Your task to perform on an android device: Open CNN.com Image 0: 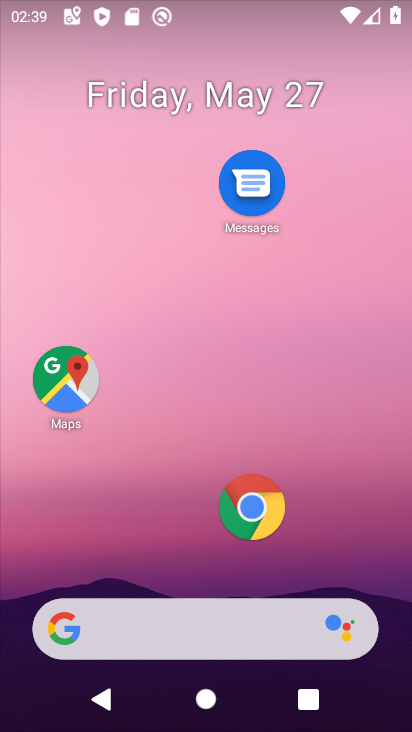
Step 0: drag from (185, 586) to (170, 397)
Your task to perform on an android device: Open CNN.com Image 1: 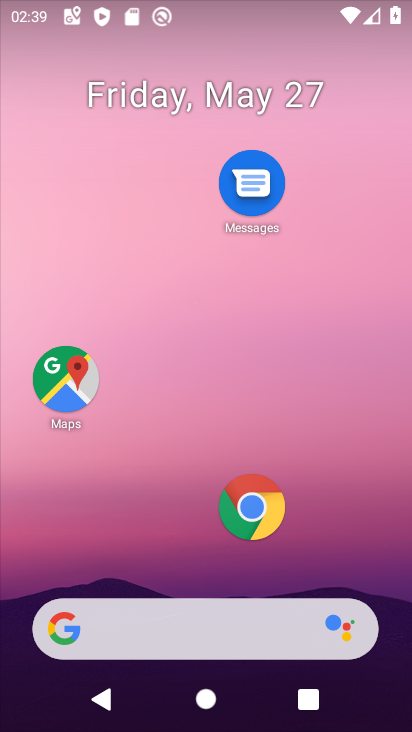
Step 1: drag from (203, 582) to (287, 0)
Your task to perform on an android device: Open CNN.com Image 2: 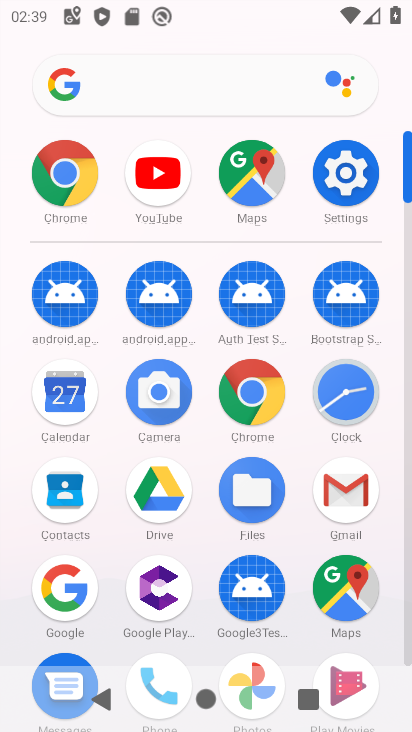
Step 2: click (160, 79)
Your task to perform on an android device: Open CNN.com Image 3: 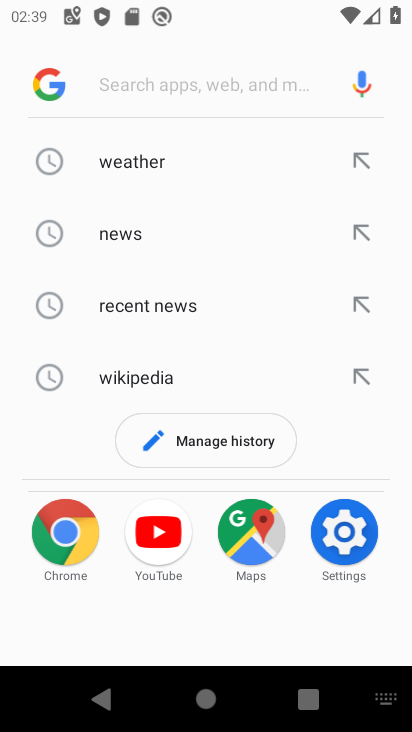
Step 3: type "CNN.com"
Your task to perform on an android device: Open CNN.com Image 4: 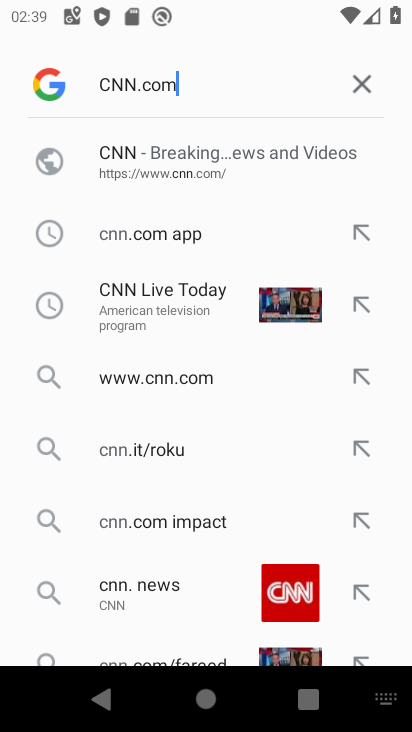
Step 4: type ""
Your task to perform on an android device: Open CNN.com Image 5: 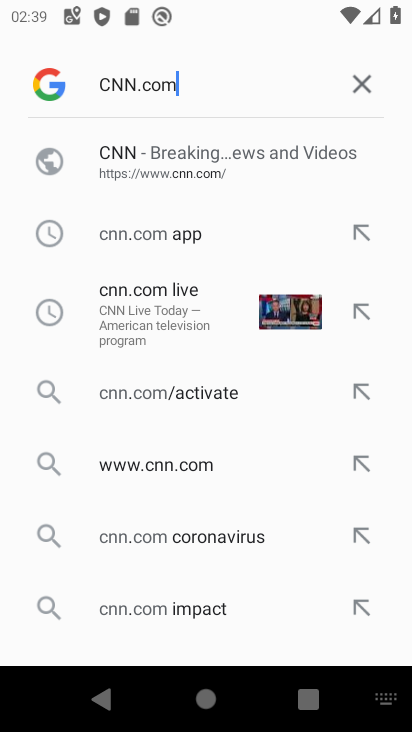
Step 5: click (191, 170)
Your task to perform on an android device: Open CNN.com Image 6: 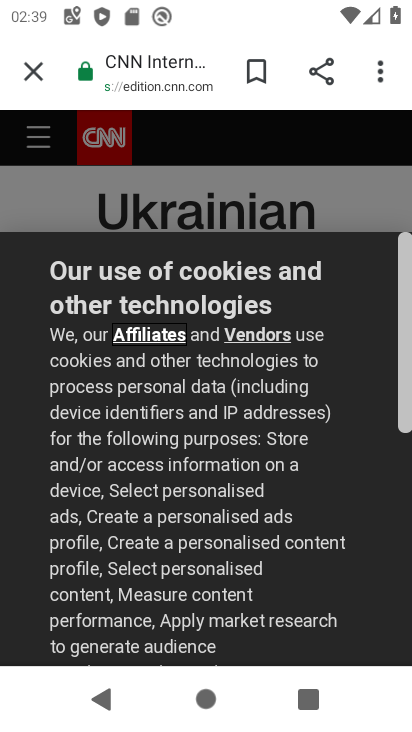
Step 6: task complete